Your task to perform on an android device: change the clock style Image 0: 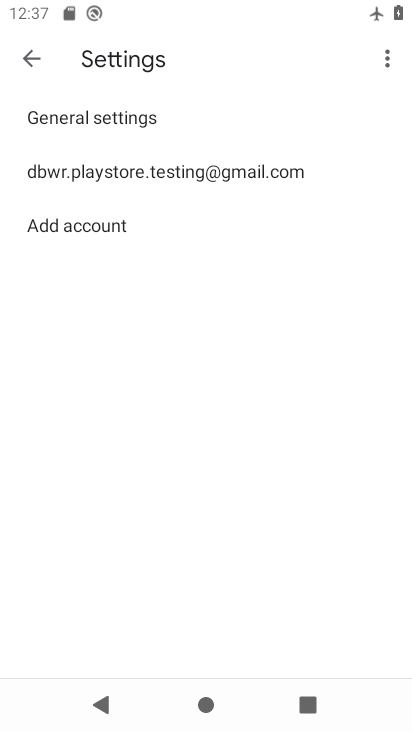
Step 0: press home button
Your task to perform on an android device: change the clock style Image 1: 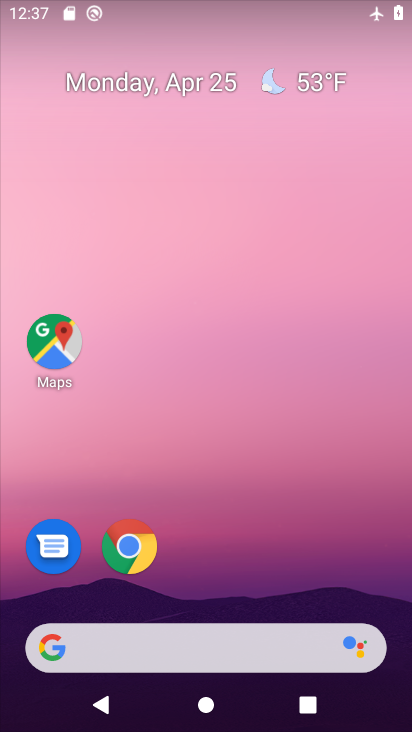
Step 1: drag from (325, 575) to (299, 159)
Your task to perform on an android device: change the clock style Image 2: 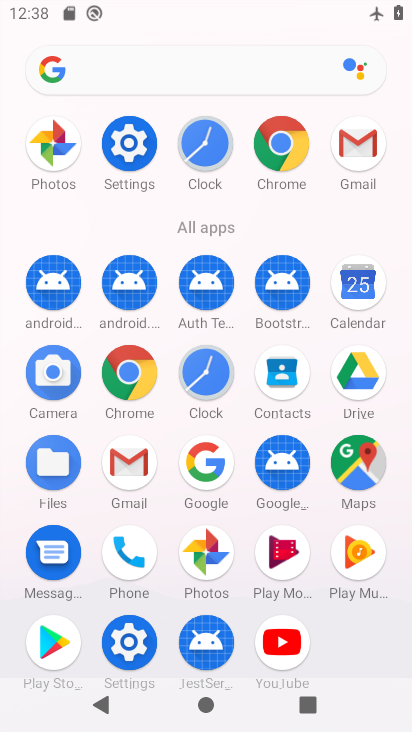
Step 2: click (204, 346)
Your task to perform on an android device: change the clock style Image 3: 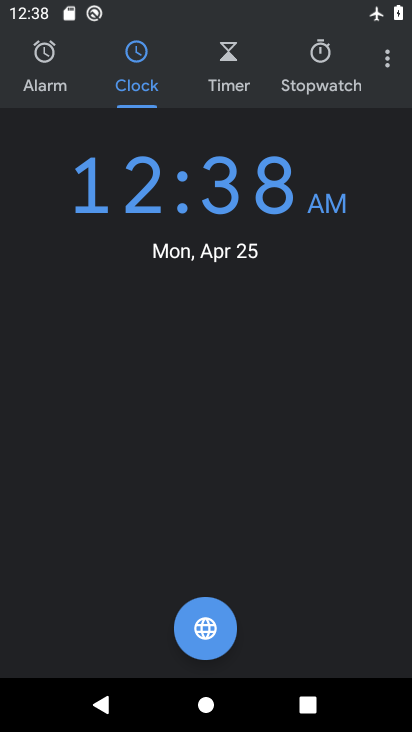
Step 3: click (381, 68)
Your task to perform on an android device: change the clock style Image 4: 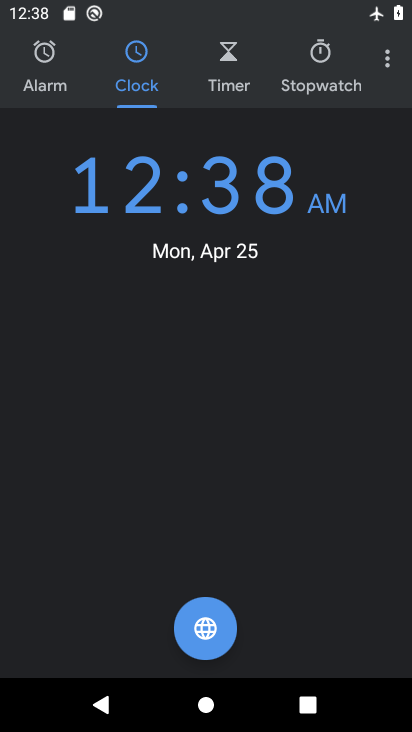
Step 4: click (381, 58)
Your task to perform on an android device: change the clock style Image 5: 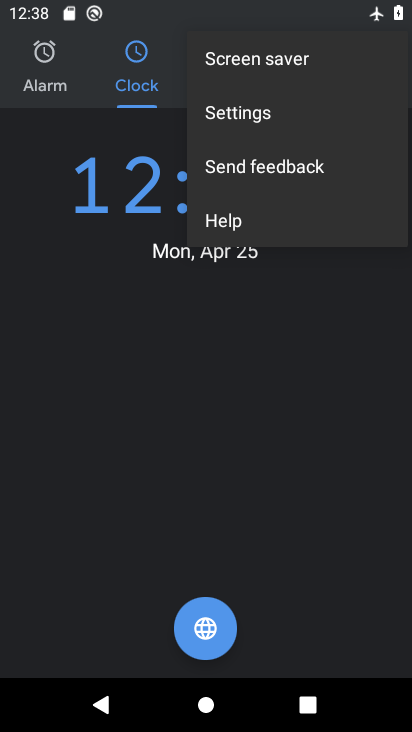
Step 5: click (240, 115)
Your task to perform on an android device: change the clock style Image 6: 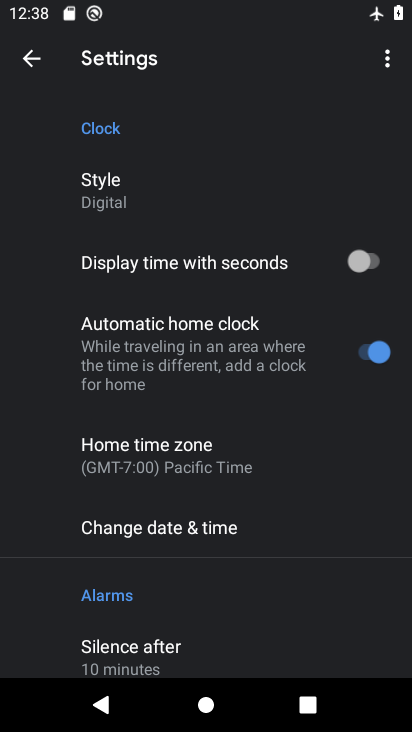
Step 6: click (136, 203)
Your task to perform on an android device: change the clock style Image 7: 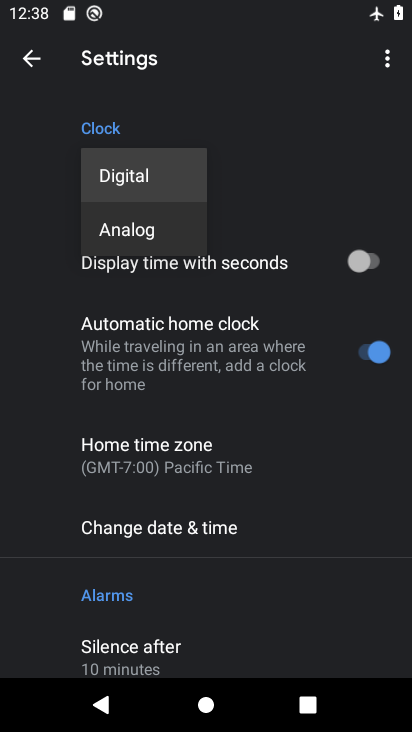
Step 7: click (145, 225)
Your task to perform on an android device: change the clock style Image 8: 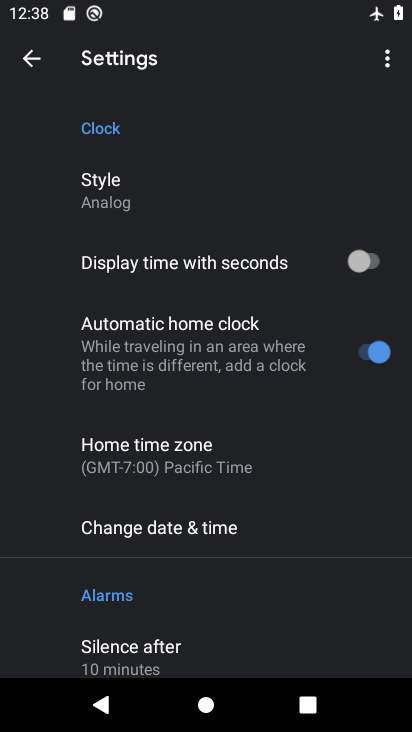
Step 8: task complete